Your task to perform on an android device: toggle data saver in the chrome app Image 0: 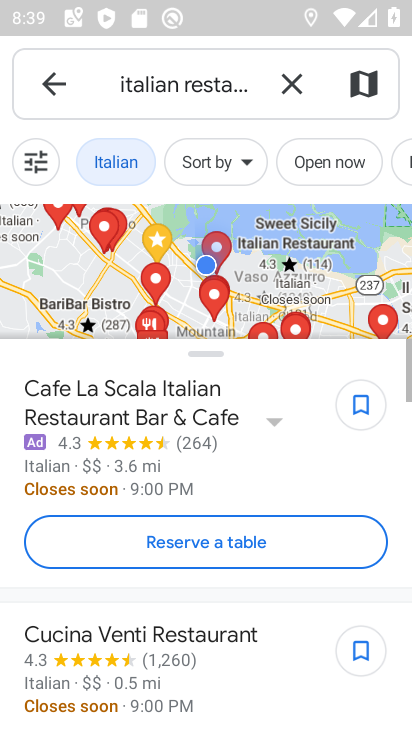
Step 0: press home button
Your task to perform on an android device: toggle data saver in the chrome app Image 1: 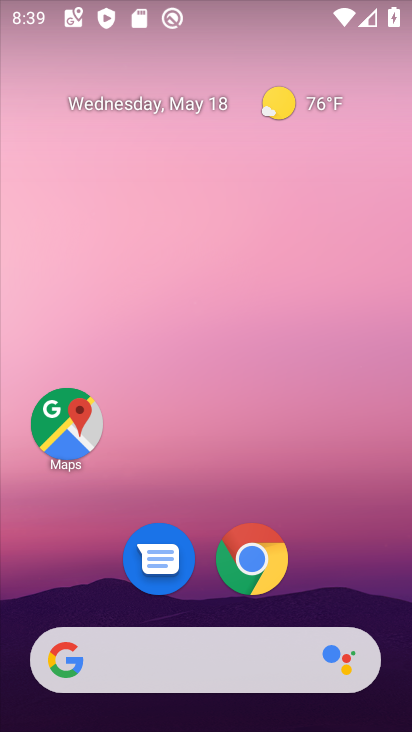
Step 1: click (250, 559)
Your task to perform on an android device: toggle data saver in the chrome app Image 2: 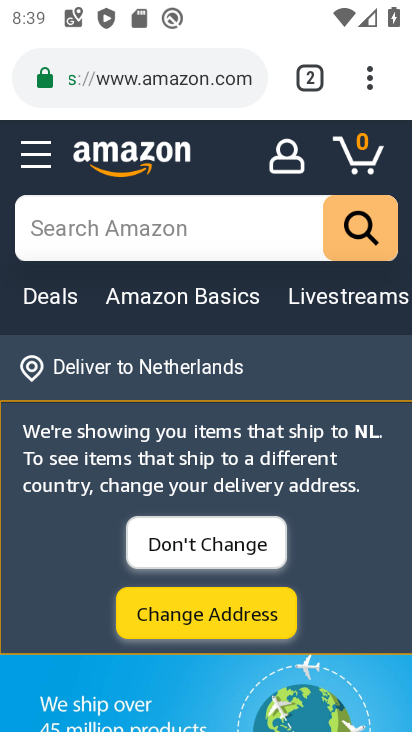
Step 2: click (360, 88)
Your task to perform on an android device: toggle data saver in the chrome app Image 3: 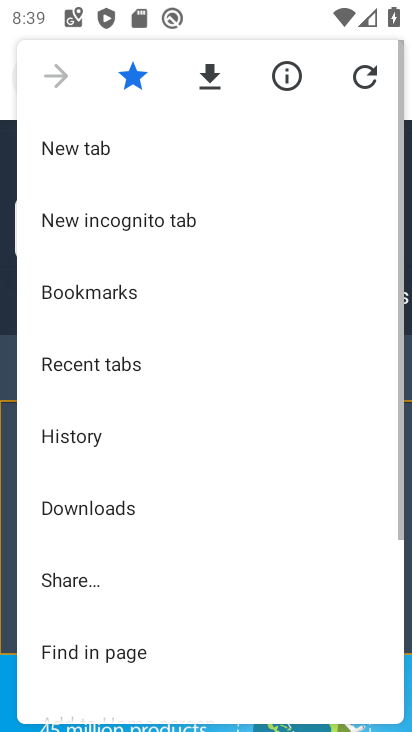
Step 3: drag from (127, 647) to (156, 198)
Your task to perform on an android device: toggle data saver in the chrome app Image 4: 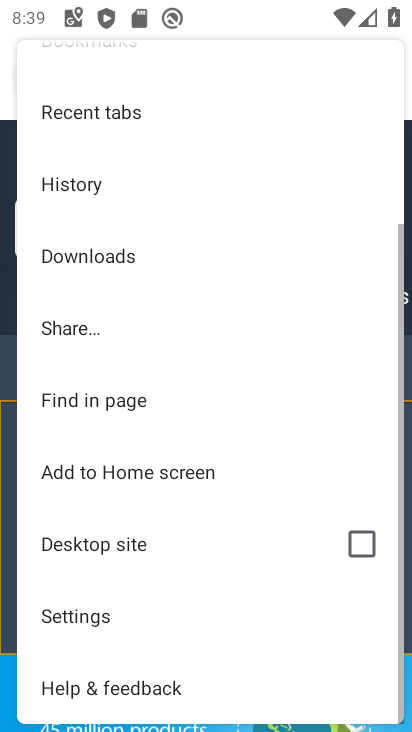
Step 4: click (128, 622)
Your task to perform on an android device: toggle data saver in the chrome app Image 5: 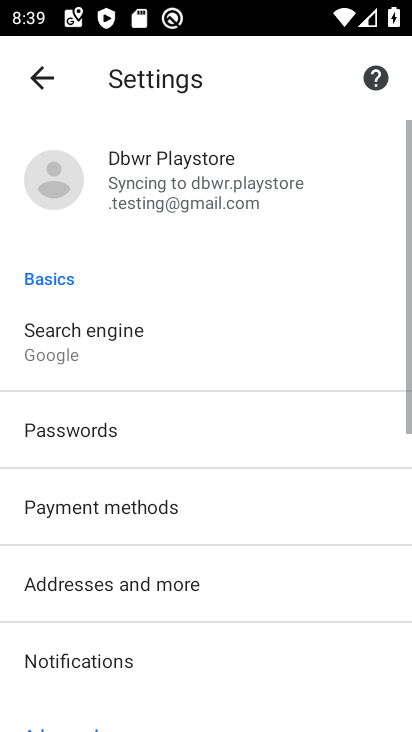
Step 5: drag from (306, 615) to (270, 129)
Your task to perform on an android device: toggle data saver in the chrome app Image 6: 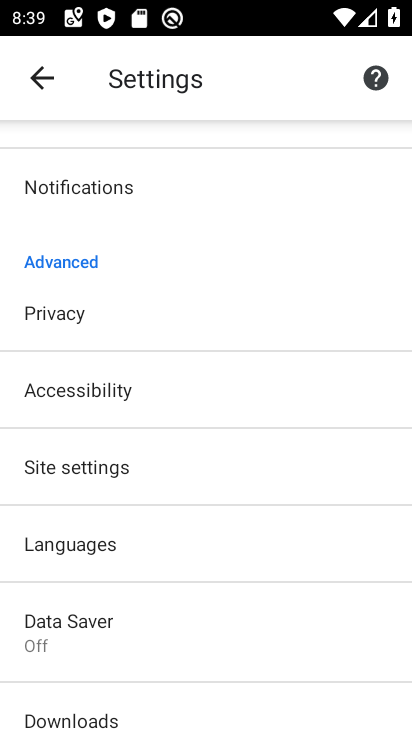
Step 6: click (119, 634)
Your task to perform on an android device: toggle data saver in the chrome app Image 7: 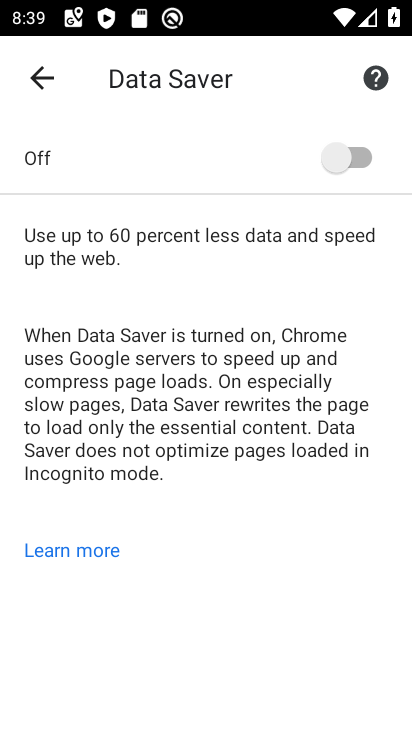
Step 7: click (347, 143)
Your task to perform on an android device: toggle data saver in the chrome app Image 8: 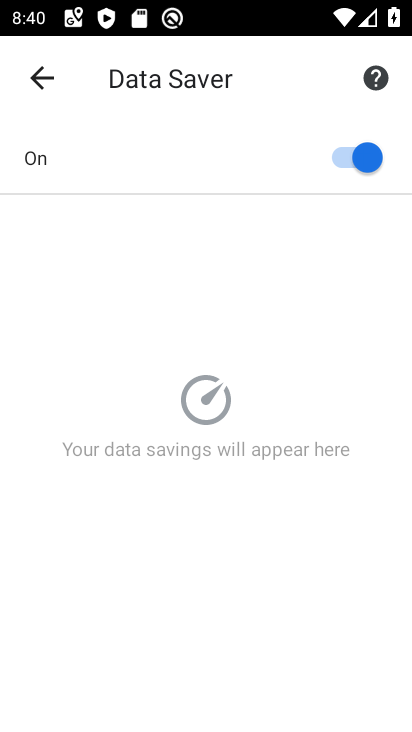
Step 8: task complete